Your task to perform on an android device: make emails show in primary in the gmail app Image 0: 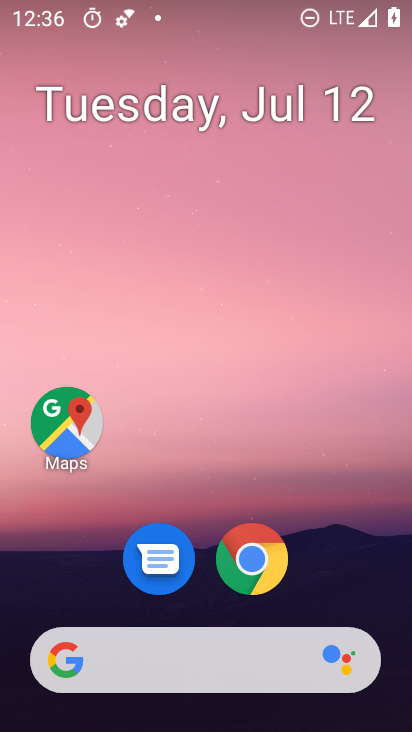
Step 0: drag from (204, 590) to (300, 11)
Your task to perform on an android device: make emails show in primary in the gmail app Image 1: 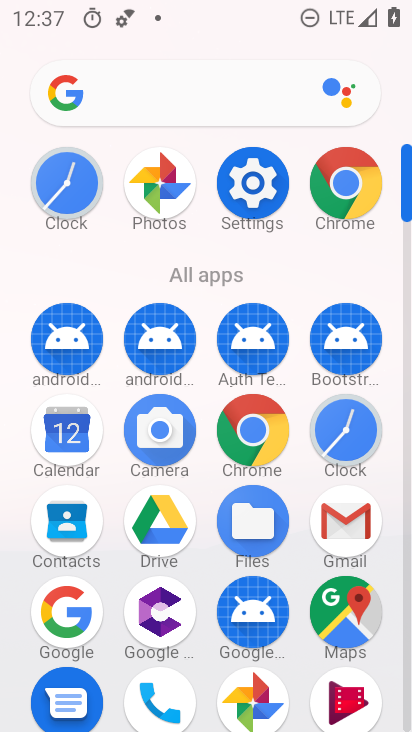
Step 1: click (326, 527)
Your task to perform on an android device: make emails show in primary in the gmail app Image 2: 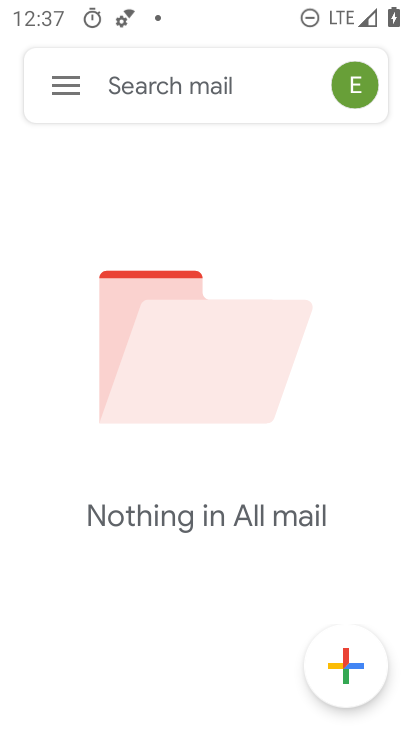
Step 2: click (57, 77)
Your task to perform on an android device: make emails show in primary in the gmail app Image 3: 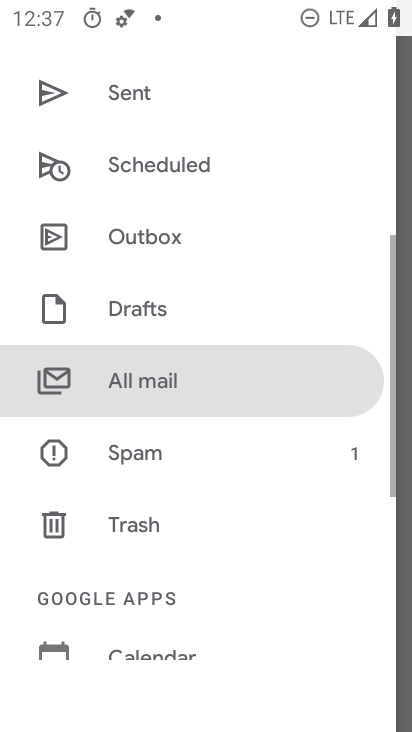
Step 3: drag from (160, 598) to (268, 9)
Your task to perform on an android device: make emails show in primary in the gmail app Image 4: 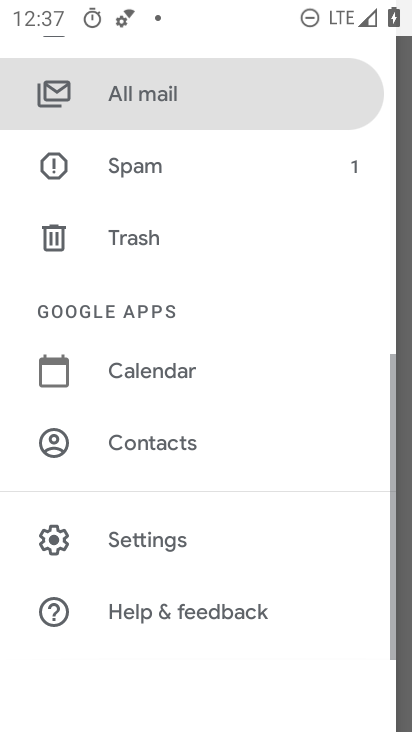
Step 4: click (161, 541)
Your task to perform on an android device: make emails show in primary in the gmail app Image 5: 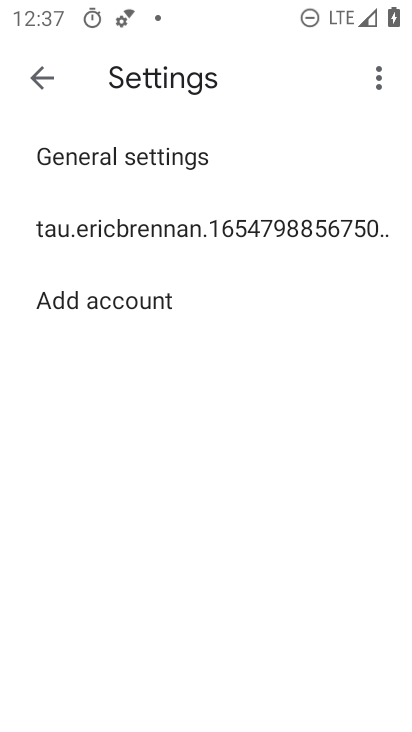
Step 5: click (144, 231)
Your task to perform on an android device: make emails show in primary in the gmail app Image 6: 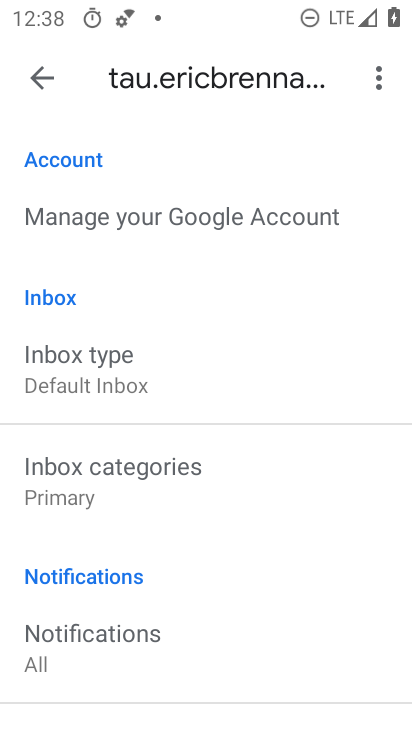
Step 6: click (82, 497)
Your task to perform on an android device: make emails show in primary in the gmail app Image 7: 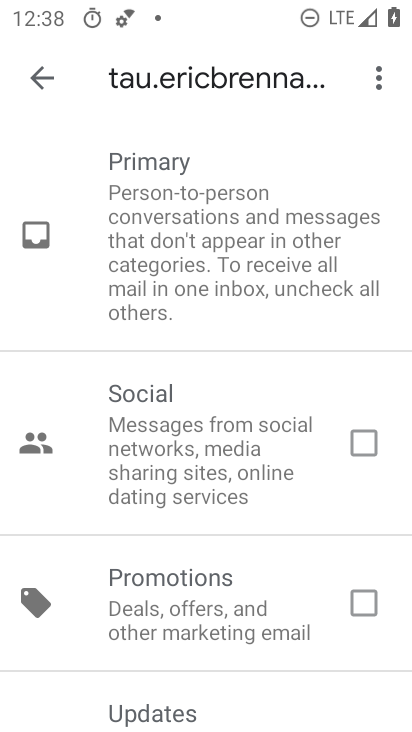
Step 7: drag from (189, 676) to (253, 164)
Your task to perform on an android device: make emails show in primary in the gmail app Image 8: 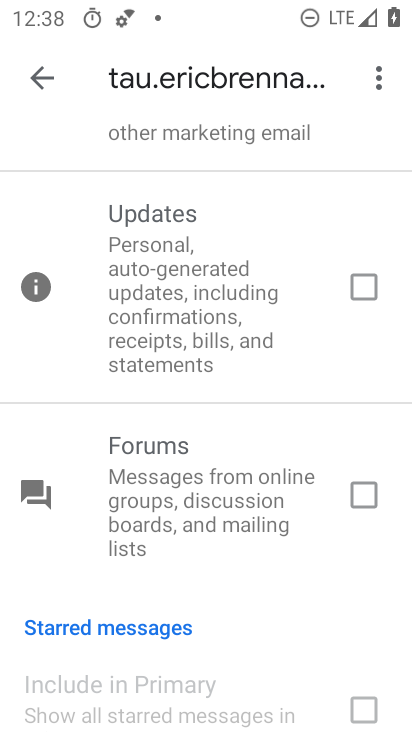
Step 8: click (348, 493)
Your task to perform on an android device: make emails show in primary in the gmail app Image 9: 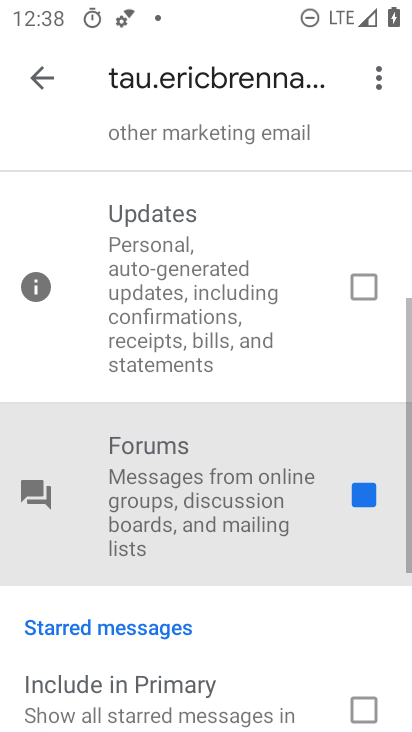
Step 9: click (358, 275)
Your task to perform on an android device: make emails show in primary in the gmail app Image 10: 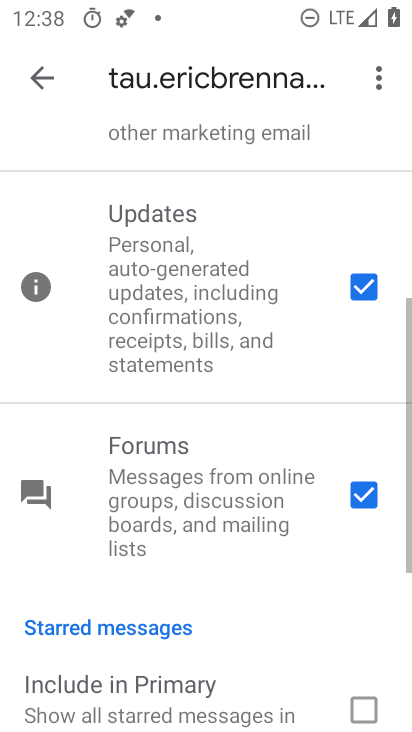
Step 10: click (362, 720)
Your task to perform on an android device: make emails show in primary in the gmail app Image 11: 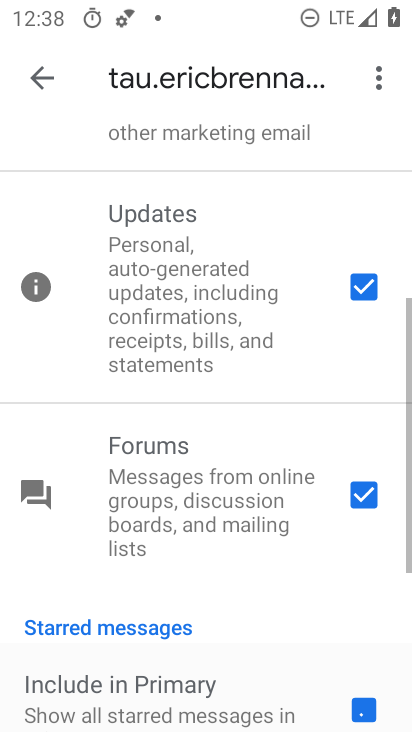
Step 11: drag from (222, 179) to (184, 489)
Your task to perform on an android device: make emails show in primary in the gmail app Image 12: 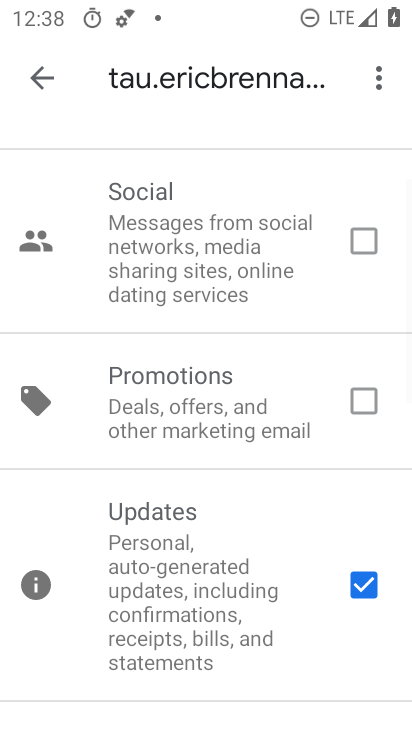
Step 12: click (371, 401)
Your task to perform on an android device: make emails show in primary in the gmail app Image 13: 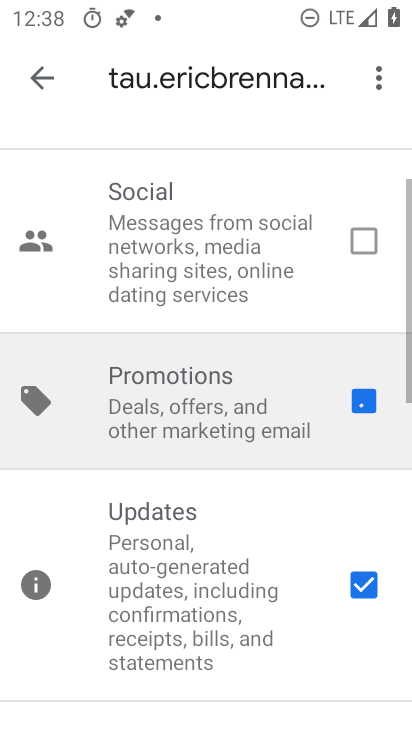
Step 13: click (354, 232)
Your task to perform on an android device: make emails show in primary in the gmail app Image 14: 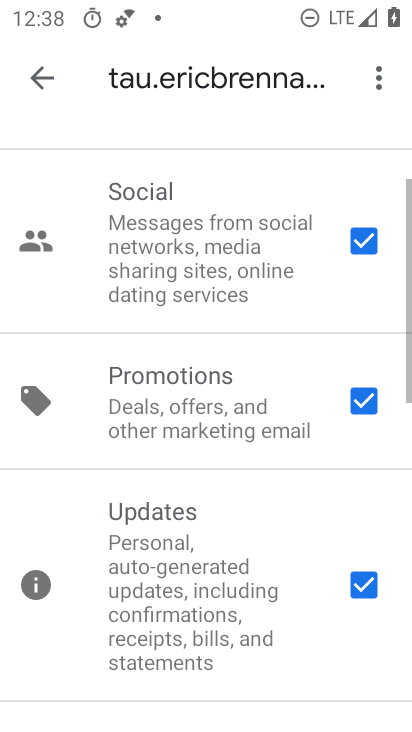
Step 14: task complete